Your task to perform on an android device: Open Reddit.com Image 0: 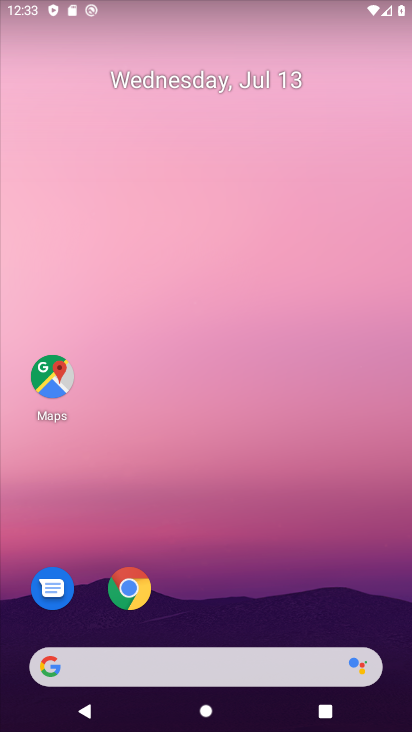
Step 0: drag from (239, 462) to (34, 84)
Your task to perform on an android device: Open Reddit.com Image 1: 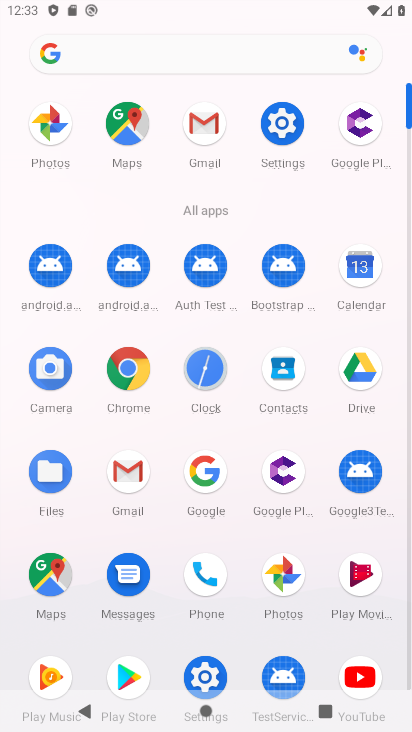
Step 1: click (150, 58)
Your task to perform on an android device: Open Reddit.com Image 2: 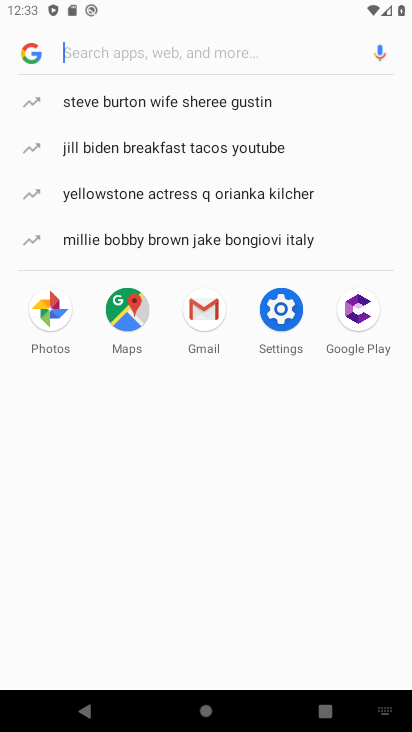
Step 2: type "Reddit.com"
Your task to perform on an android device: Open Reddit.com Image 3: 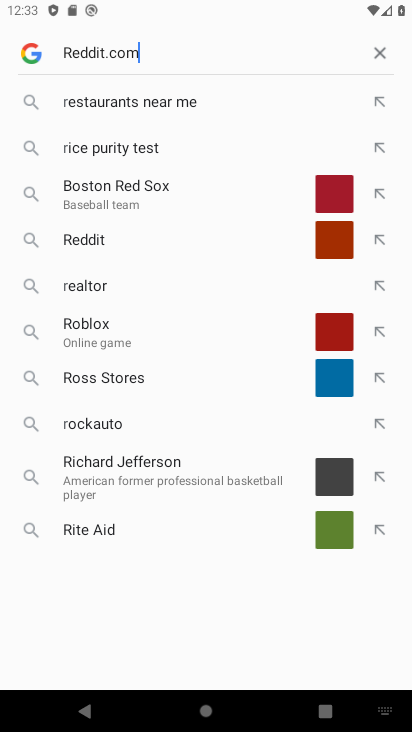
Step 3: type ""
Your task to perform on an android device: Open Reddit.com Image 4: 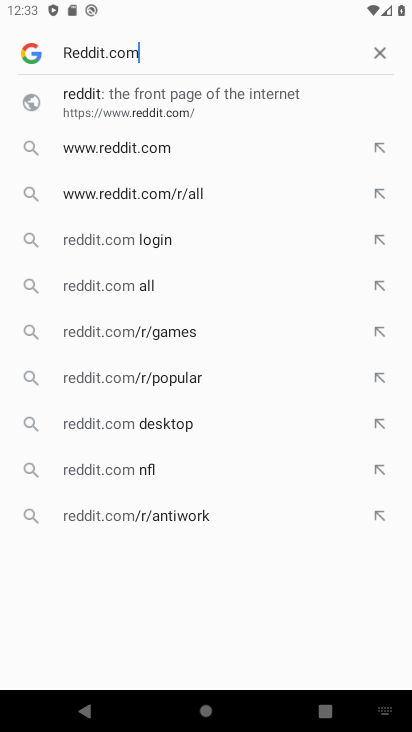
Step 4: click (94, 100)
Your task to perform on an android device: Open Reddit.com Image 5: 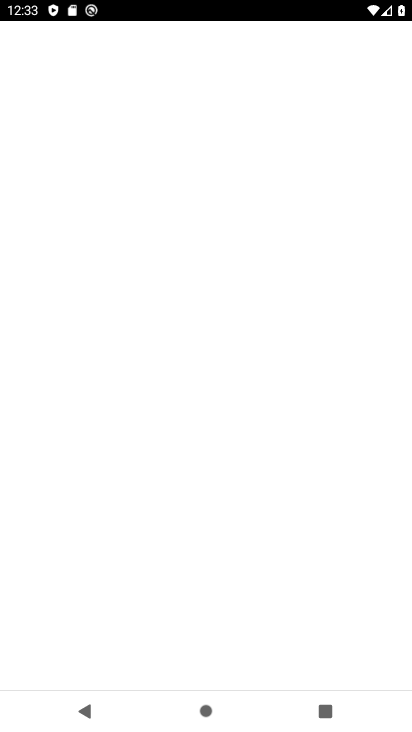
Step 5: drag from (192, 494) to (256, 164)
Your task to perform on an android device: Open Reddit.com Image 6: 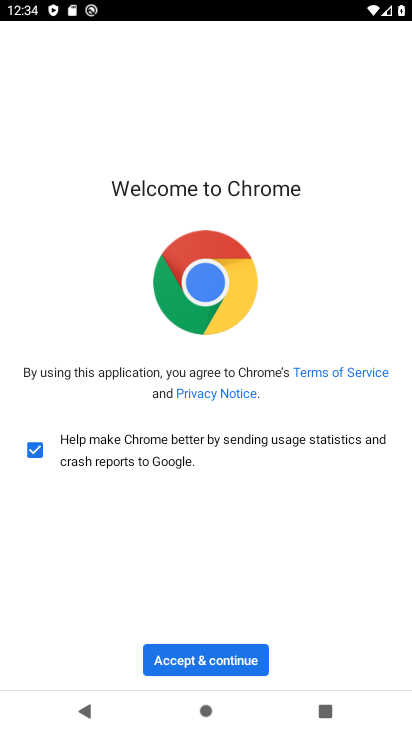
Step 6: drag from (181, 505) to (233, 344)
Your task to perform on an android device: Open Reddit.com Image 7: 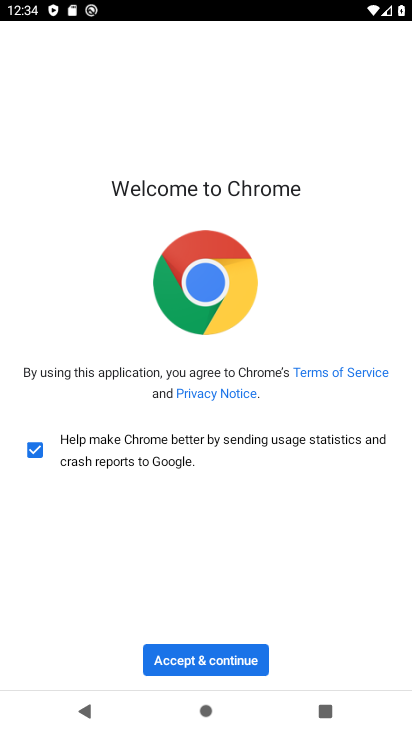
Step 7: drag from (206, 425) to (407, 59)
Your task to perform on an android device: Open Reddit.com Image 8: 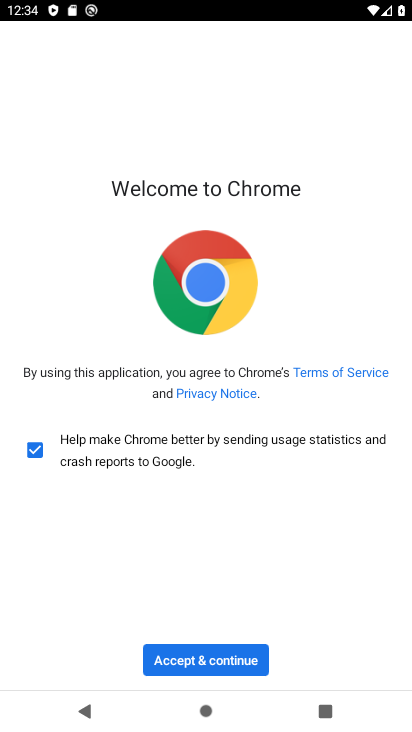
Step 8: drag from (205, 518) to (223, 167)
Your task to perform on an android device: Open Reddit.com Image 9: 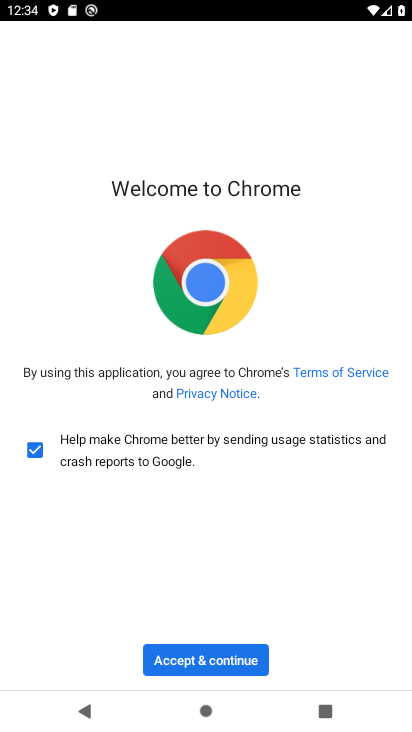
Step 9: drag from (212, 542) to (226, 178)
Your task to perform on an android device: Open Reddit.com Image 10: 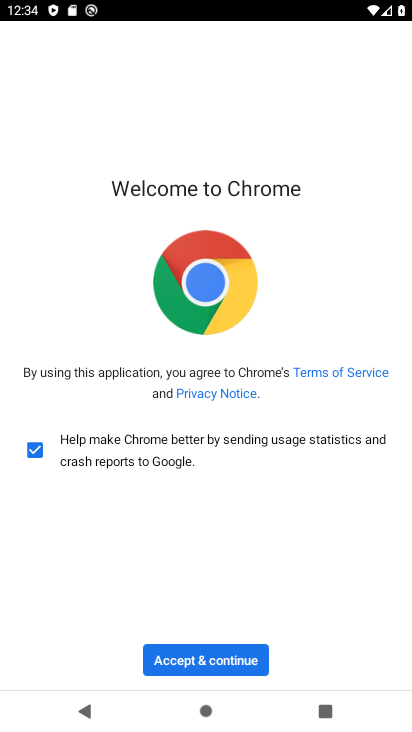
Step 10: drag from (189, 455) to (275, 203)
Your task to perform on an android device: Open Reddit.com Image 11: 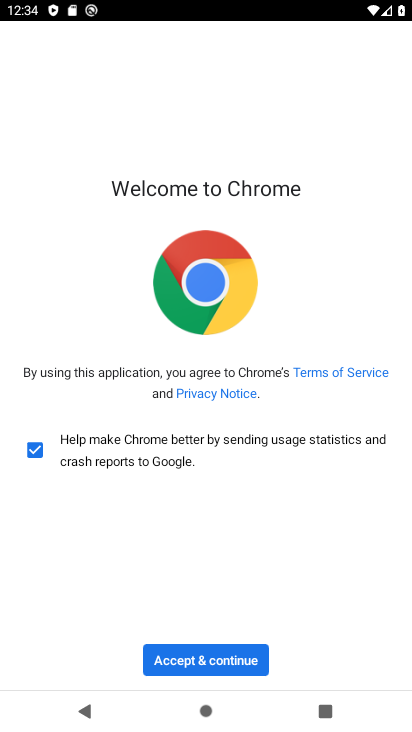
Step 11: click (179, 661)
Your task to perform on an android device: Open Reddit.com Image 12: 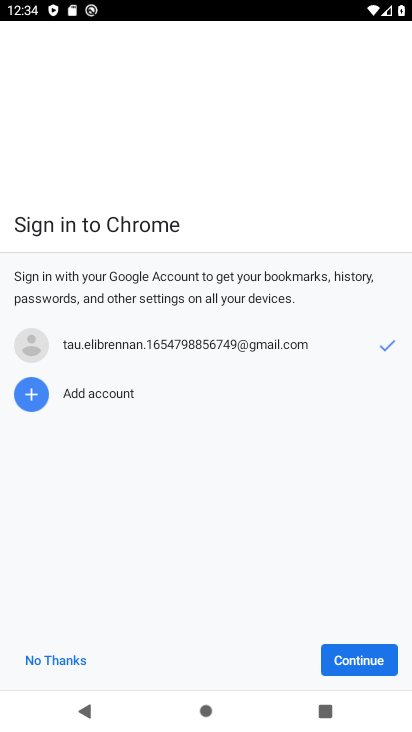
Step 12: click (337, 658)
Your task to perform on an android device: Open Reddit.com Image 13: 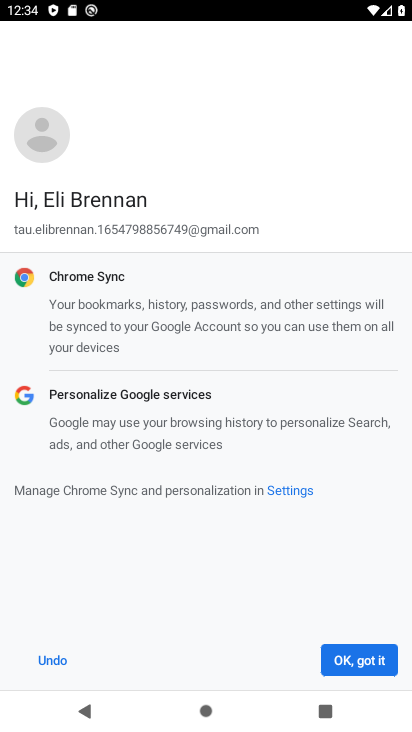
Step 13: click (349, 665)
Your task to perform on an android device: Open Reddit.com Image 14: 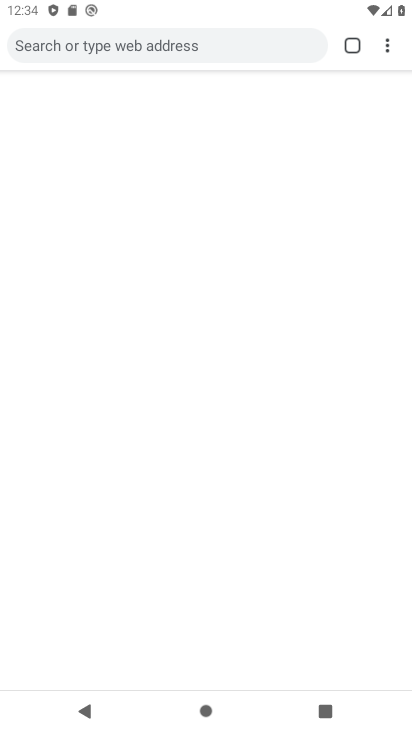
Step 14: task complete